Your task to perform on an android device: Go to Amazon Image 0: 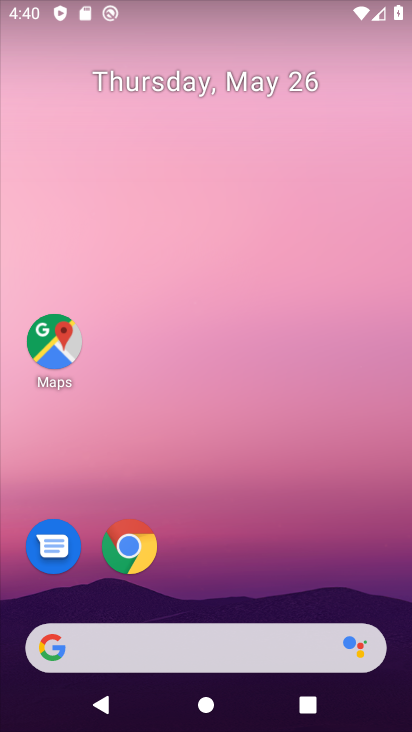
Step 0: click (140, 559)
Your task to perform on an android device: Go to Amazon Image 1: 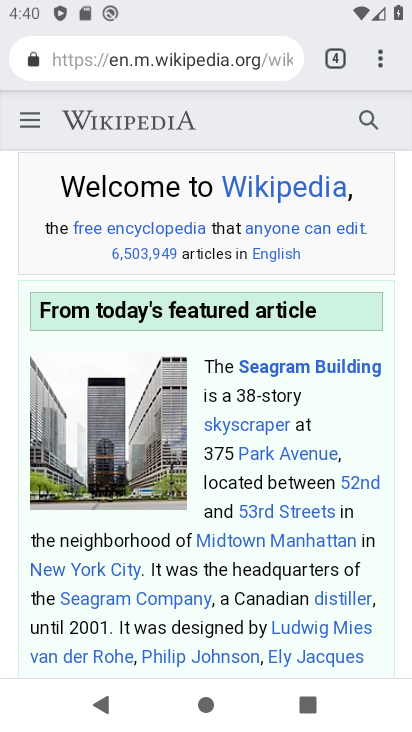
Step 1: click (335, 64)
Your task to perform on an android device: Go to Amazon Image 2: 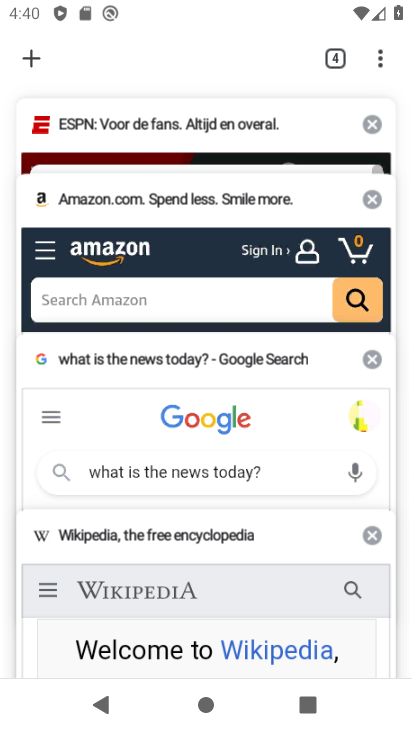
Step 2: click (243, 303)
Your task to perform on an android device: Go to Amazon Image 3: 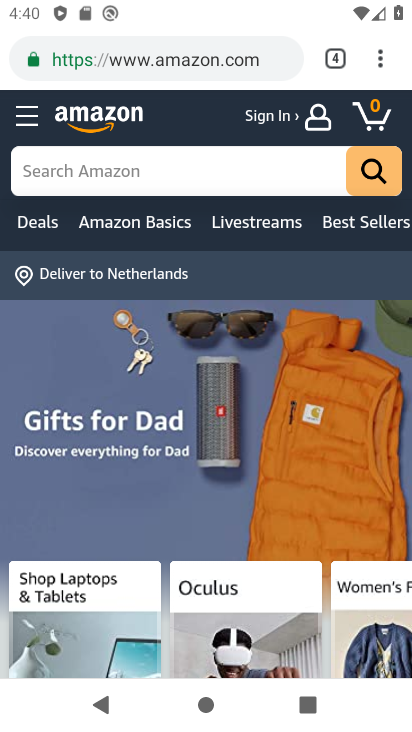
Step 3: task complete